Your task to perform on an android device: Go to Android settings Image 0: 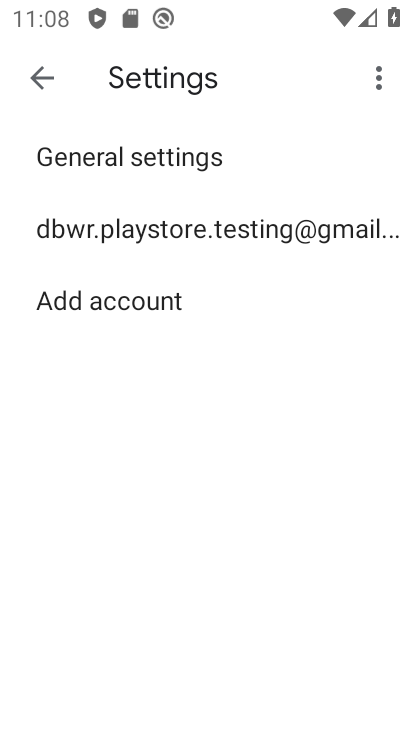
Step 0: press home button
Your task to perform on an android device: Go to Android settings Image 1: 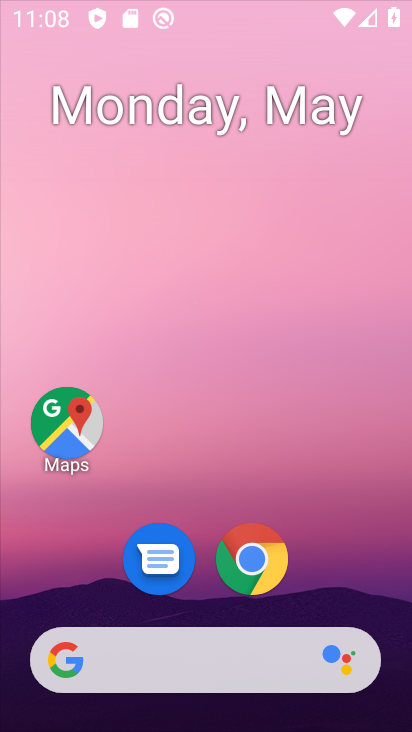
Step 1: drag from (386, 678) to (324, 42)
Your task to perform on an android device: Go to Android settings Image 2: 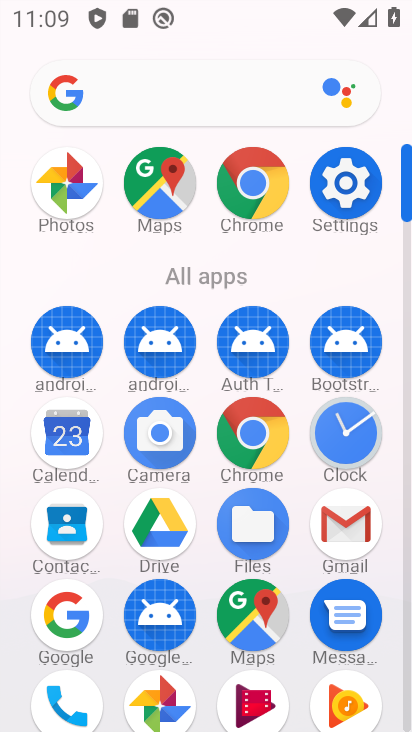
Step 2: click (353, 161)
Your task to perform on an android device: Go to Android settings Image 3: 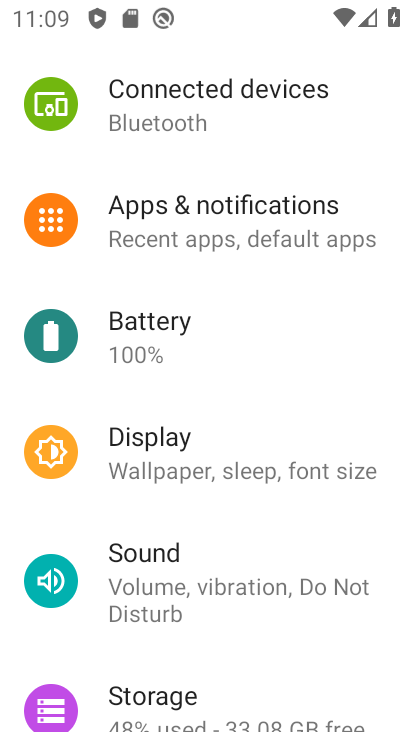
Step 3: drag from (74, 705) to (173, 64)
Your task to perform on an android device: Go to Android settings Image 4: 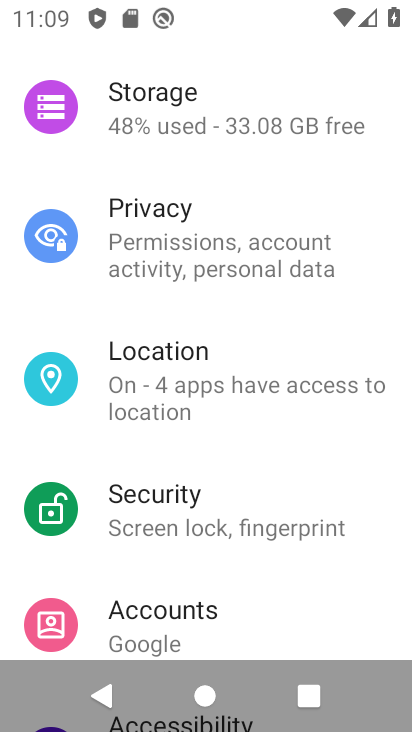
Step 4: drag from (165, 661) to (155, 119)
Your task to perform on an android device: Go to Android settings Image 5: 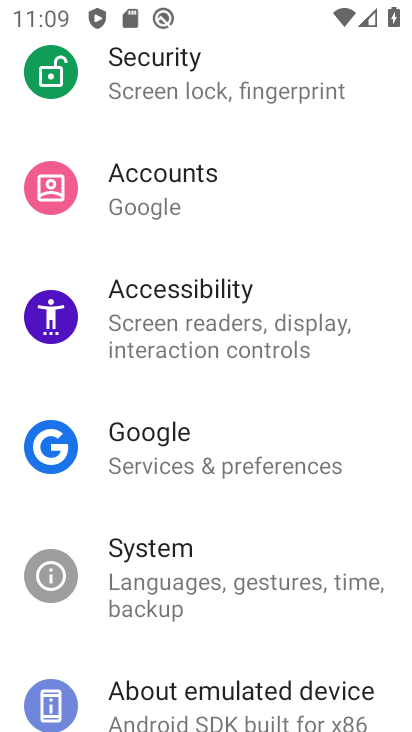
Step 5: drag from (212, 662) to (248, 167)
Your task to perform on an android device: Go to Android settings Image 6: 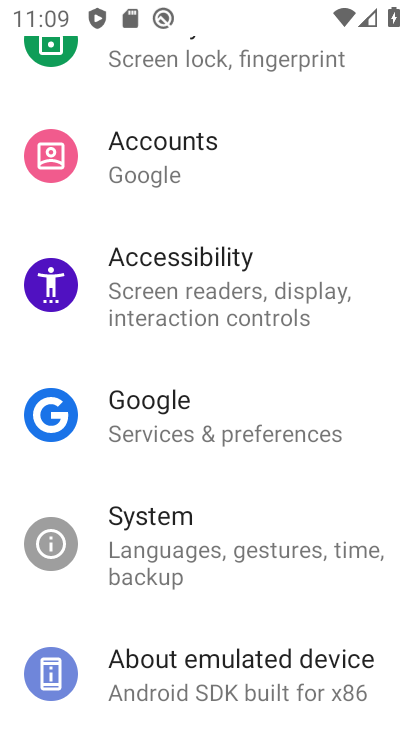
Step 6: click (210, 668)
Your task to perform on an android device: Go to Android settings Image 7: 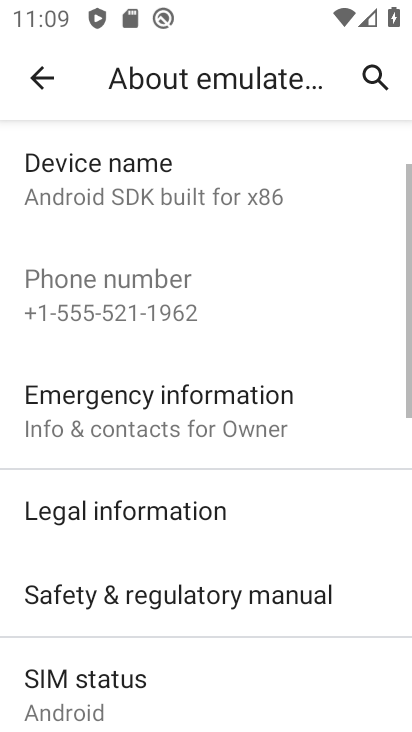
Step 7: drag from (210, 665) to (191, 168)
Your task to perform on an android device: Go to Android settings Image 8: 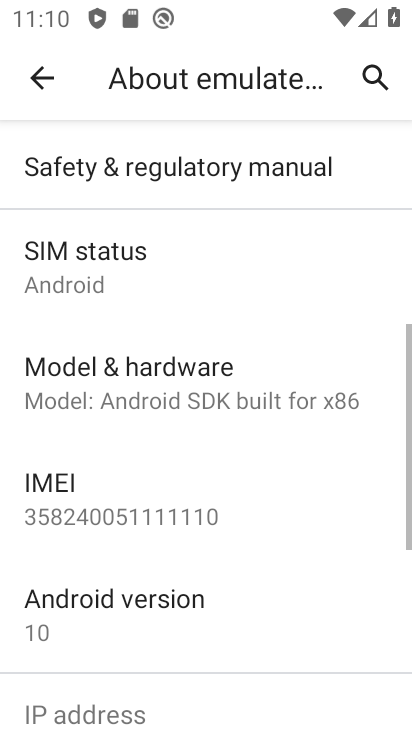
Step 8: click (141, 613)
Your task to perform on an android device: Go to Android settings Image 9: 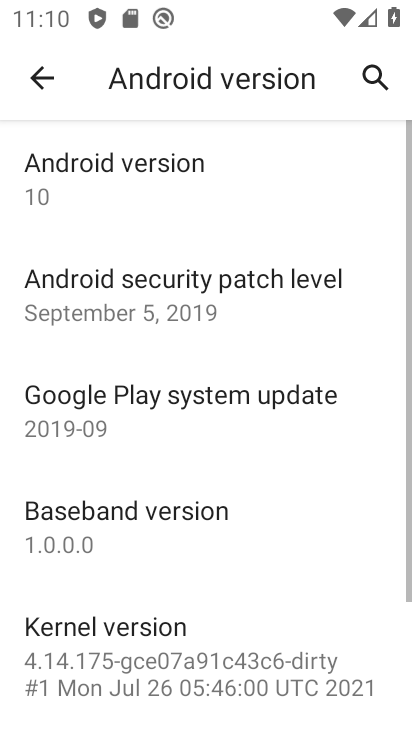
Step 9: task complete